Your task to perform on an android device: Show me popular games on the Play Store Image 0: 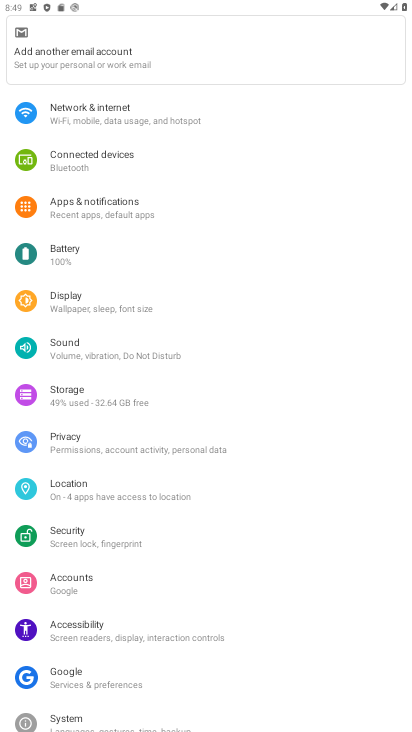
Step 0: press home button
Your task to perform on an android device: Show me popular games on the Play Store Image 1: 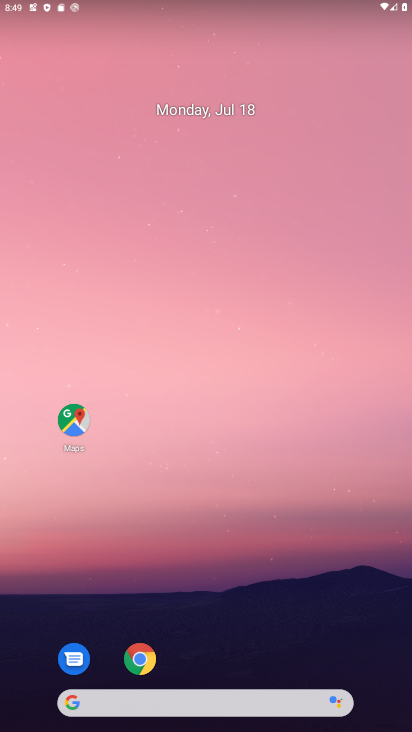
Step 1: drag from (279, 631) to (352, 0)
Your task to perform on an android device: Show me popular games on the Play Store Image 2: 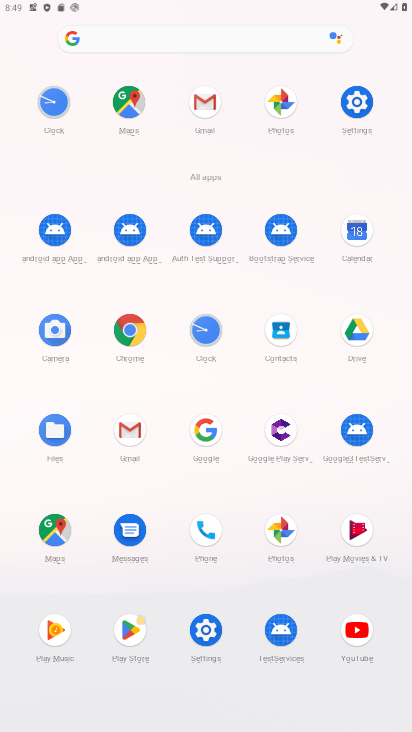
Step 2: click (129, 633)
Your task to perform on an android device: Show me popular games on the Play Store Image 3: 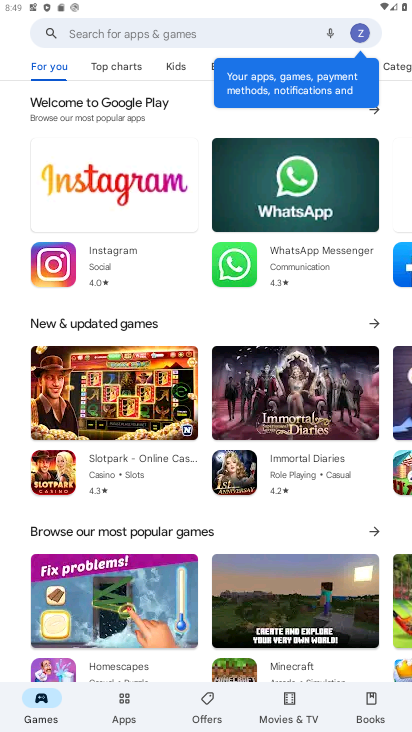
Step 3: click (217, 33)
Your task to perform on an android device: Show me popular games on the Play Store Image 4: 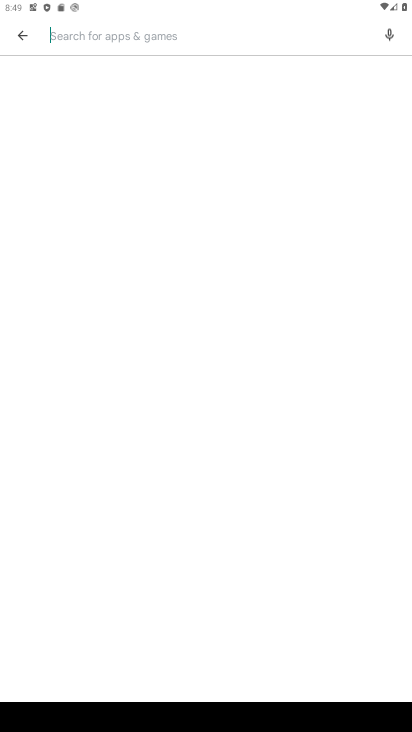
Step 4: type "popular games"
Your task to perform on an android device: Show me popular games on the Play Store Image 5: 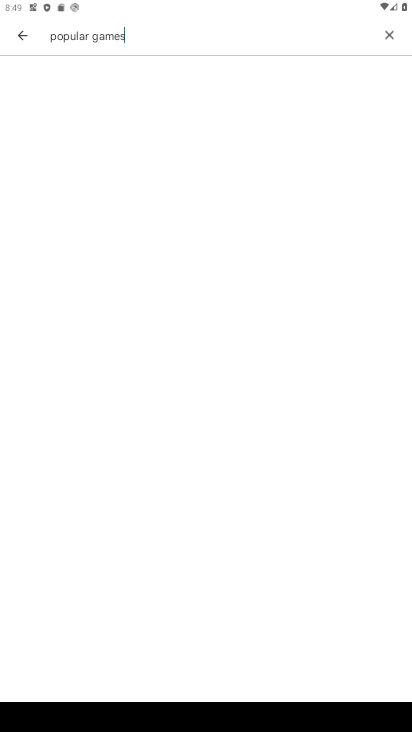
Step 5: press enter
Your task to perform on an android device: Show me popular games on the Play Store Image 6: 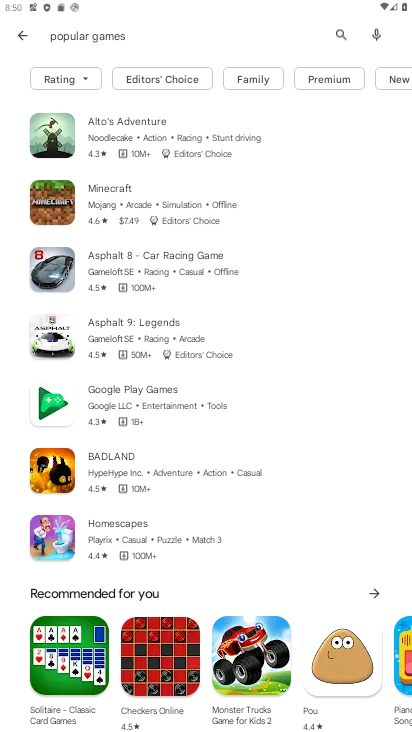
Step 6: task complete